Your task to perform on an android device: Open calendar and show me the fourth week of next month Image 0: 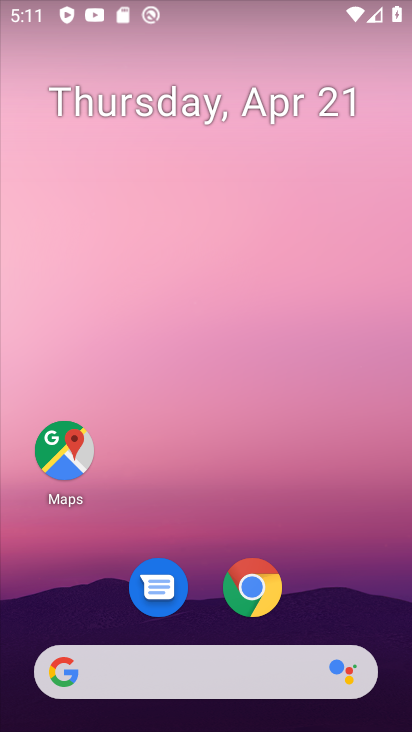
Step 0: drag from (209, 601) to (235, 154)
Your task to perform on an android device: Open calendar and show me the fourth week of next month Image 1: 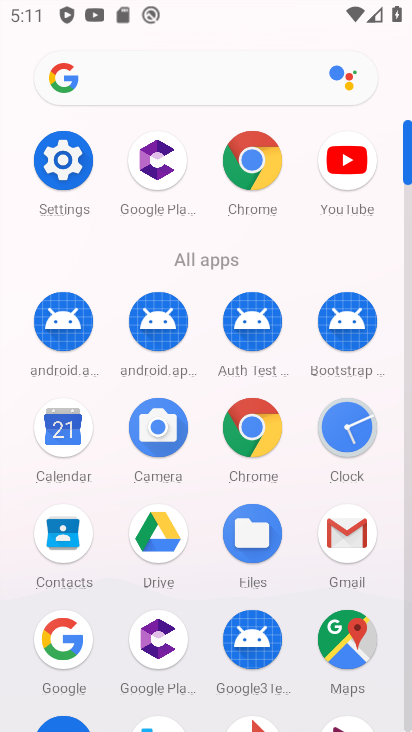
Step 1: click (58, 424)
Your task to perform on an android device: Open calendar and show me the fourth week of next month Image 2: 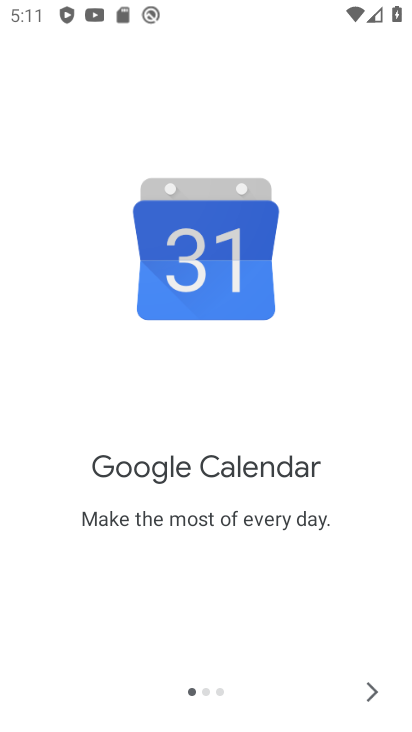
Step 2: click (370, 687)
Your task to perform on an android device: Open calendar and show me the fourth week of next month Image 3: 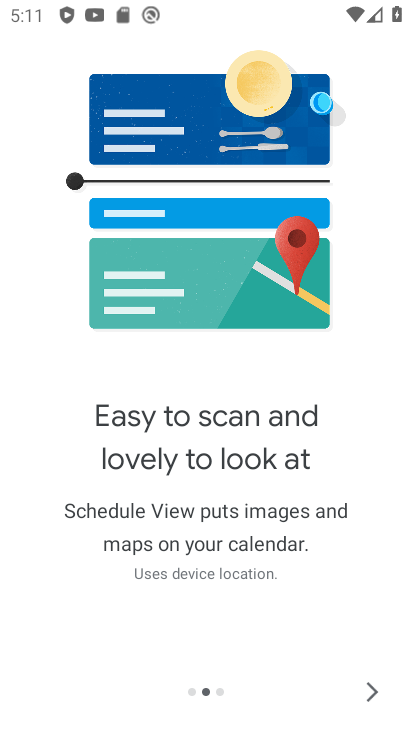
Step 3: click (366, 696)
Your task to perform on an android device: Open calendar and show me the fourth week of next month Image 4: 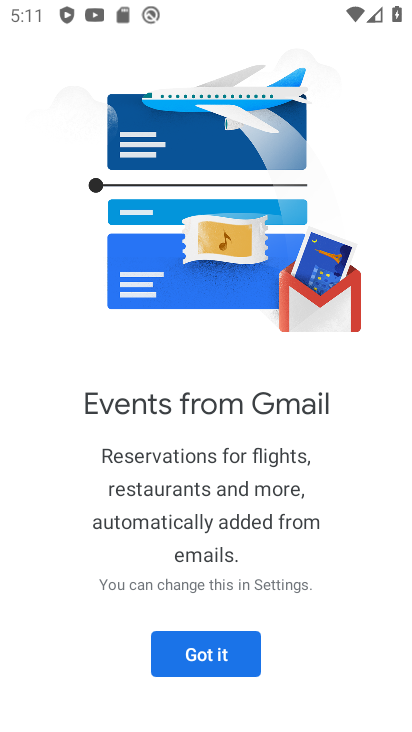
Step 4: click (207, 657)
Your task to perform on an android device: Open calendar and show me the fourth week of next month Image 5: 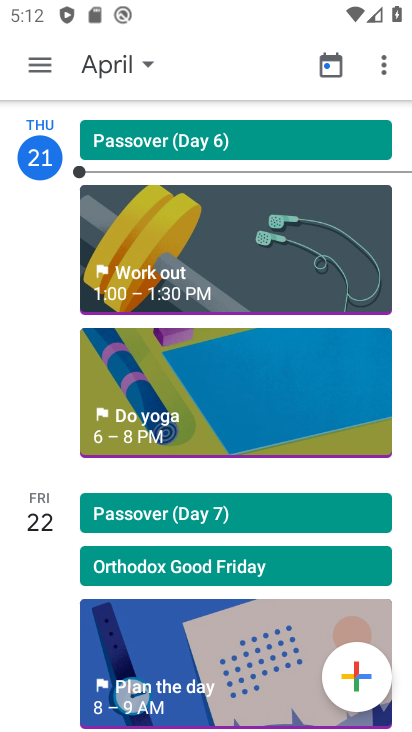
Step 5: click (39, 59)
Your task to perform on an android device: Open calendar and show me the fourth week of next month Image 6: 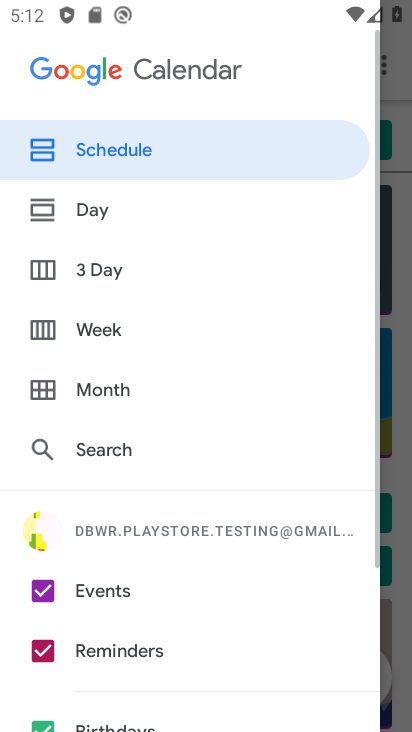
Step 6: click (70, 324)
Your task to perform on an android device: Open calendar and show me the fourth week of next month Image 7: 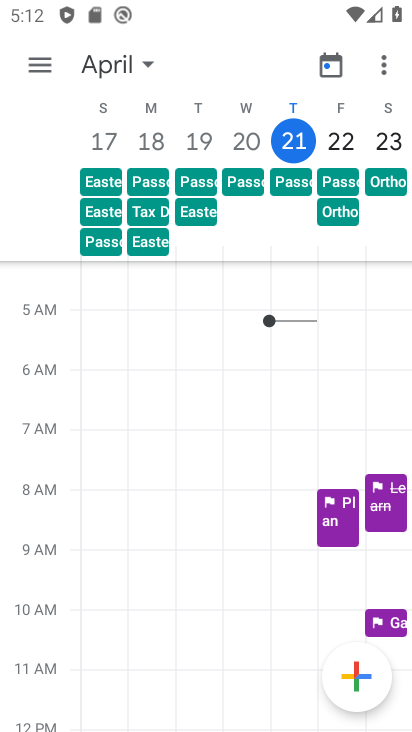
Step 7: drag from (397, 133) to (55, 136)
Your task to perform on an android device: Open calendar and show me the fourth week of next month Image 8: 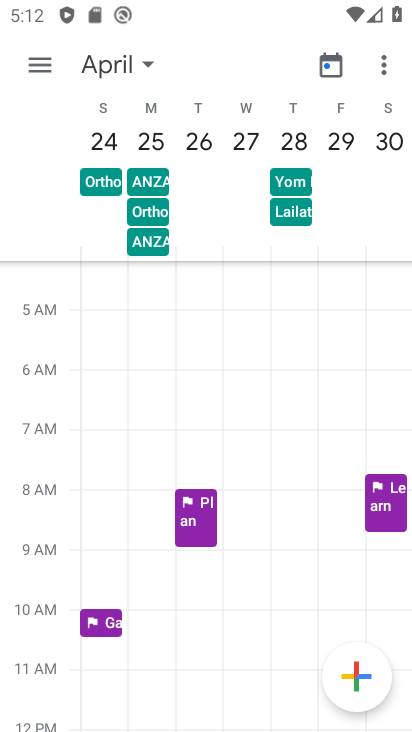
Step 8: drag from (393, 137) to (3, 163)
Your task to perform on an android device: Open calendar and show me the fourth week of next month Image 9: 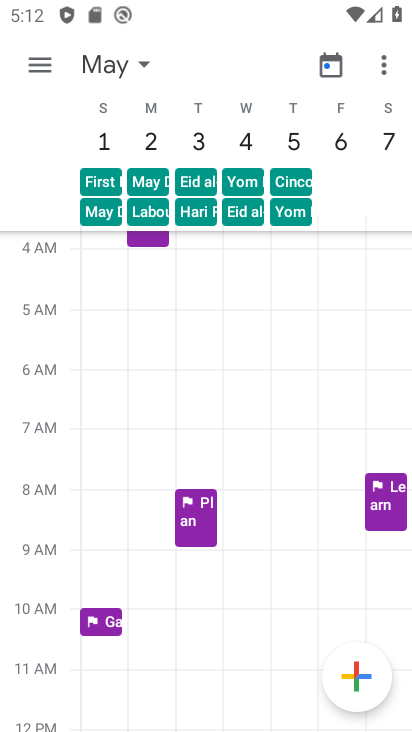
Step 9: drag from (387, 132) to (8, 141)
Your task to perform on an android device: Open calendar and show me the fourth week of next month Image 10: 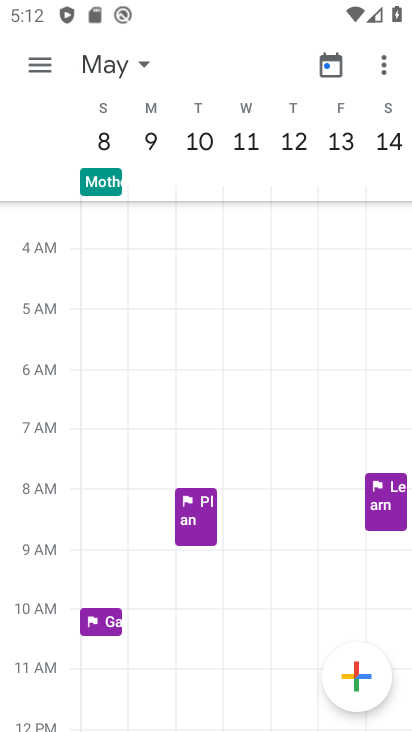
Step 10: drag from (388, 140) to (66, 146)
Your task to perform on an android device: Open calendar and show me the fourth week of next month Image 11: 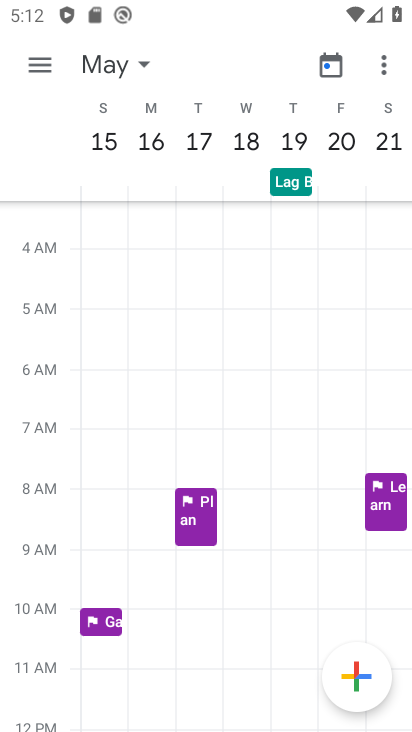
Step 11: drag from (384, 146) to (39, 150)
Your task to perform on an android device: Open calendar and show me the fourth week of next month Image 12: 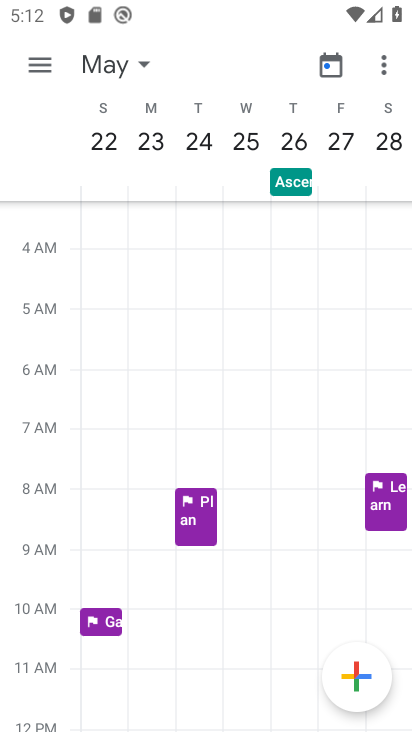
Step 12: click (95, 141)
Your task to perform on an android device: Open calendar and show me the fourth week of next month Image 13: 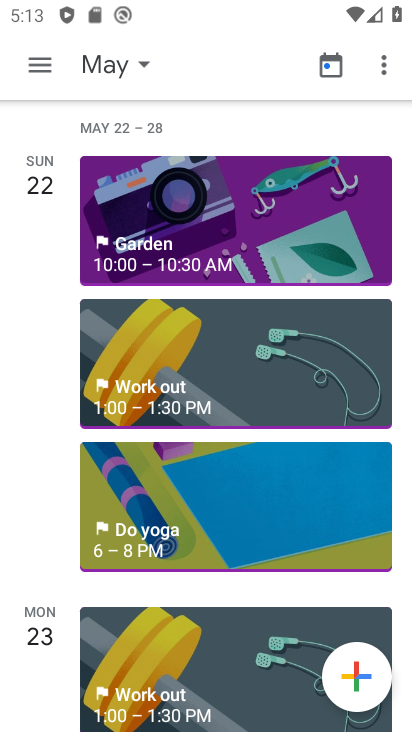
Step 13: task complete